Your task to perform on an android device: check battery use Image 0: 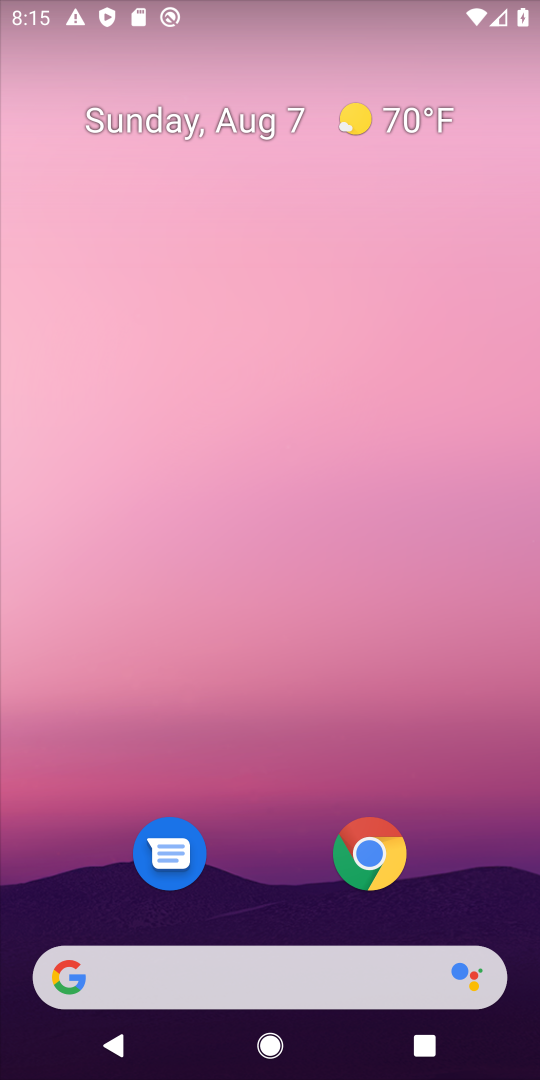
Step 0: drag from (286, 841) to (297, 283)
Your task to perform on an android device: check battery use Image 1: 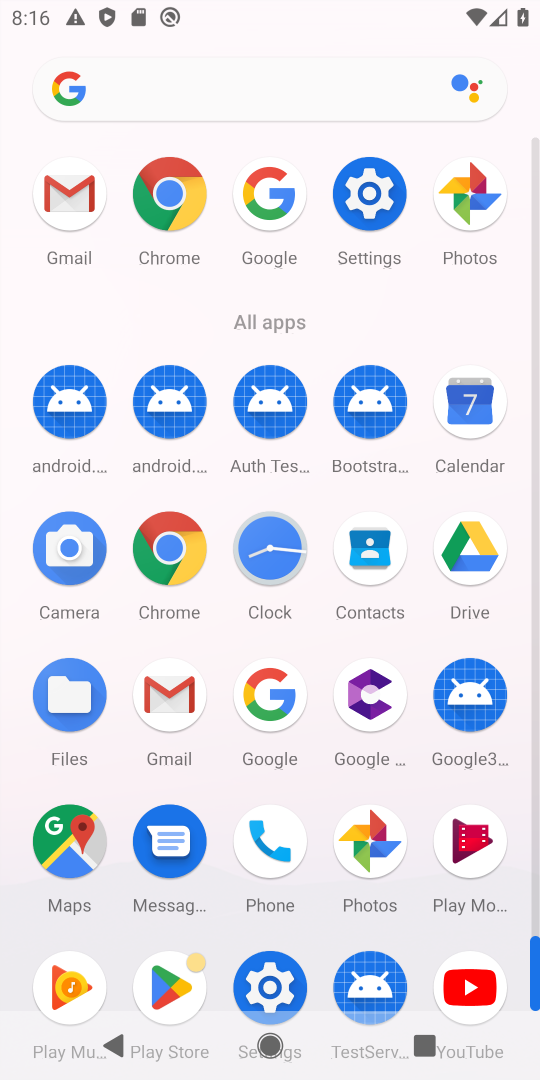
Step 1: click (387, 210)
Your task to perform on an android device: check battery use Image 2: 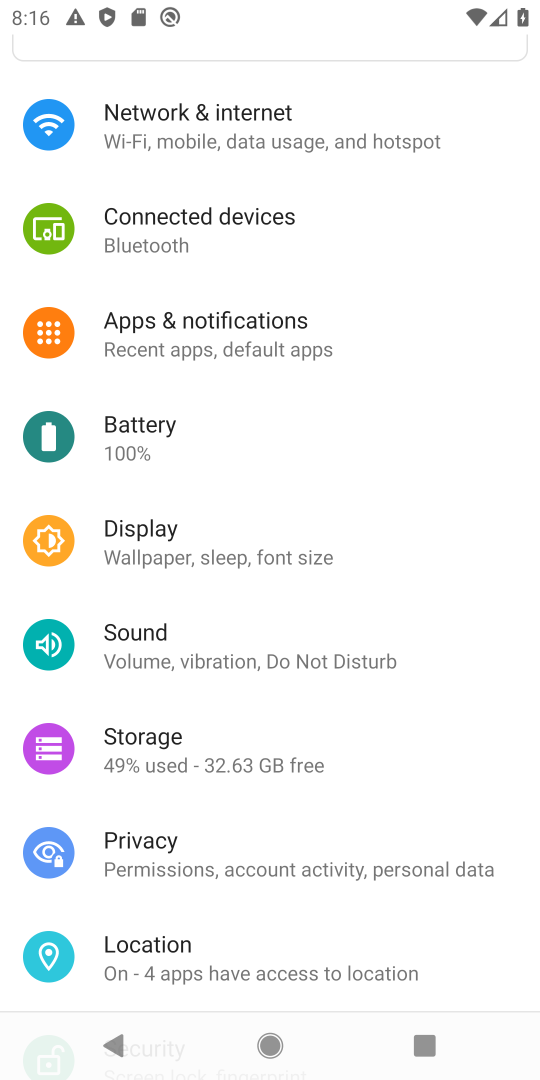
Step 2: click (168, 459)
Your task to perform on an android device: check battery use Image 3: 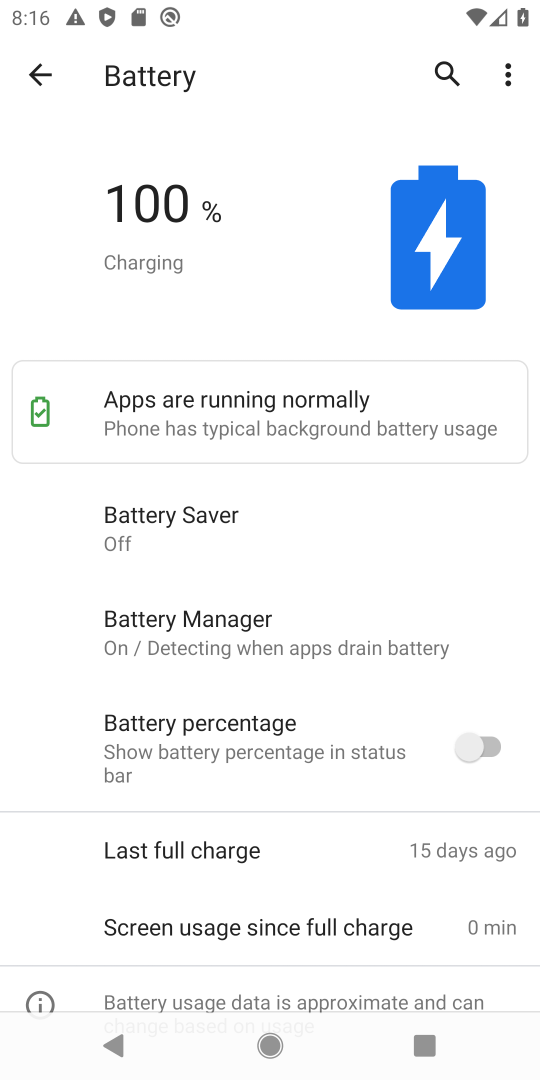
Step 3: task complete